Your task to perform on an android device: Go to internet settings Image 0: 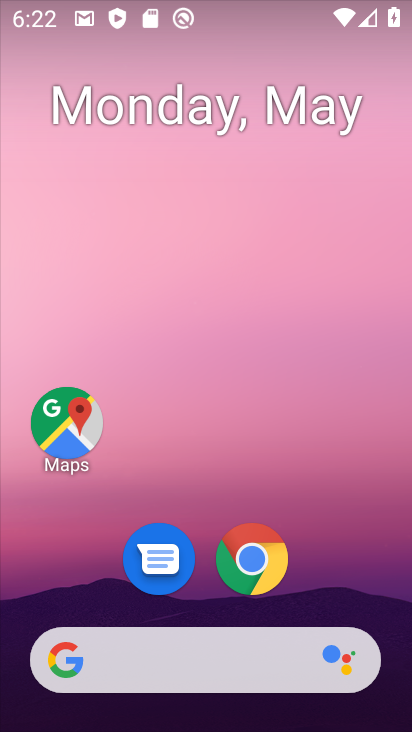
Step 0: drag from (384, 658) to (318, 0)
Your task to perform on an android device: Go to internet settings Image 1: 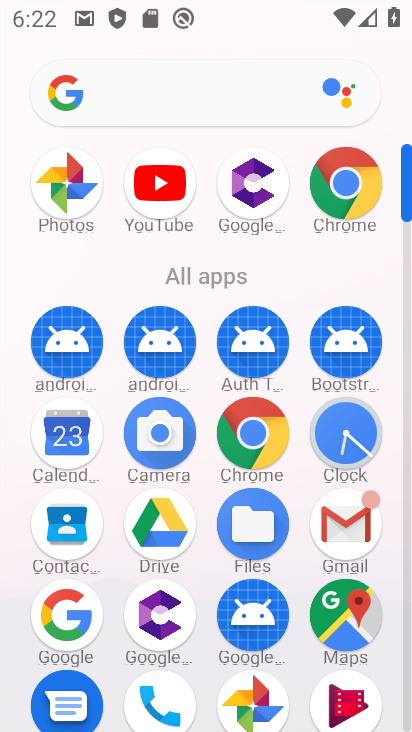
Step 1: drag from (201, 668) to (236, 216)
Your task to perform on an android device: Go to internet settings Image 2: 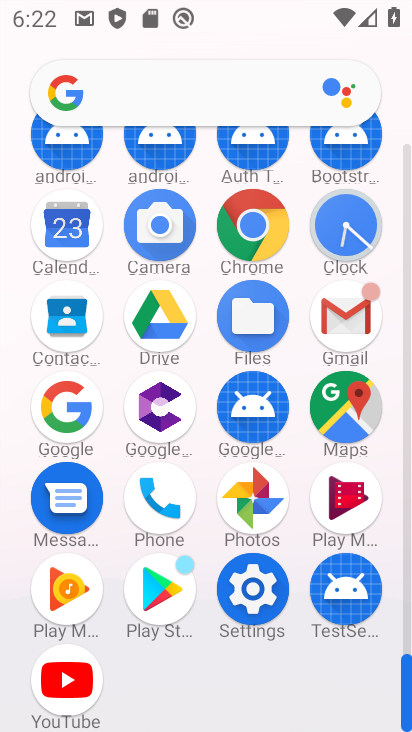
Step 2: click (239, 600)
Your task to perform on an android device: Go to internet settings Image 3: 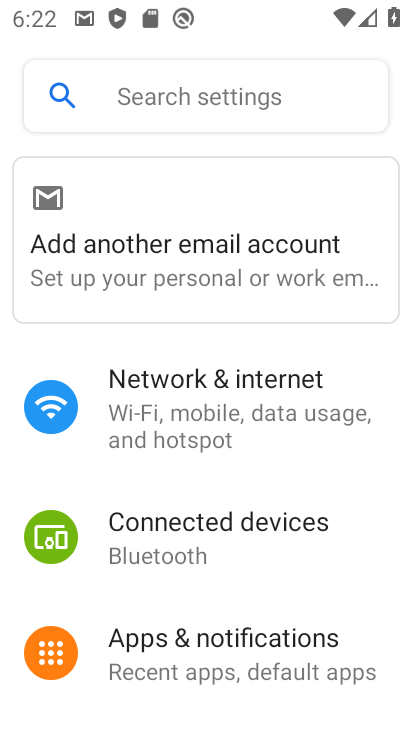
Step 3: click (207, 390)
Your task to perform on an android device: Go to internet settings Image 4: 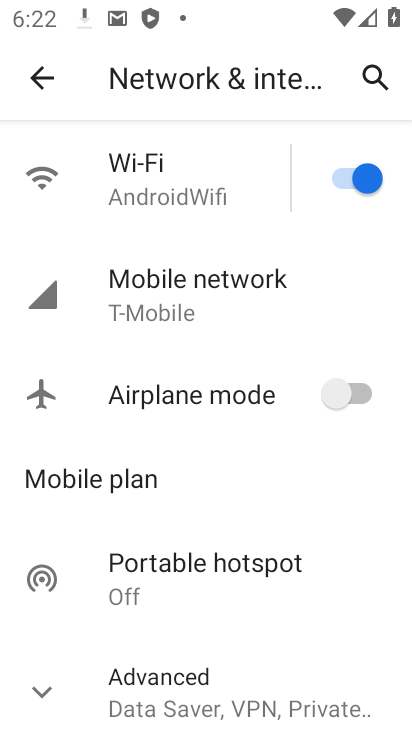
Step 4: task complete